Your task to perform on an android device: add a contact in the contacts app Image 0: 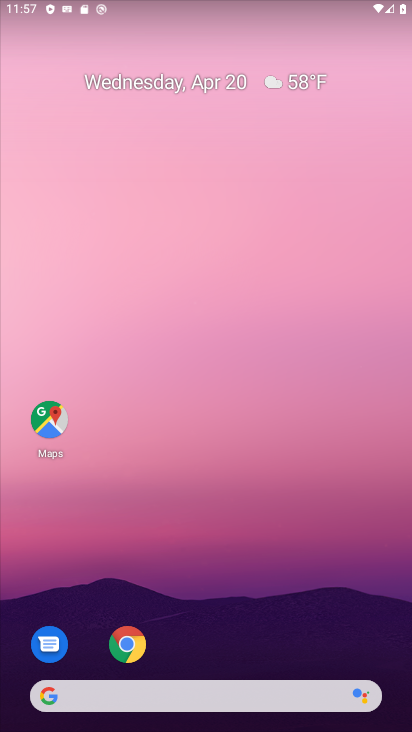
Step 0: press home button
Your task to perform on an android device: add a contact in the contacts app Image 1: 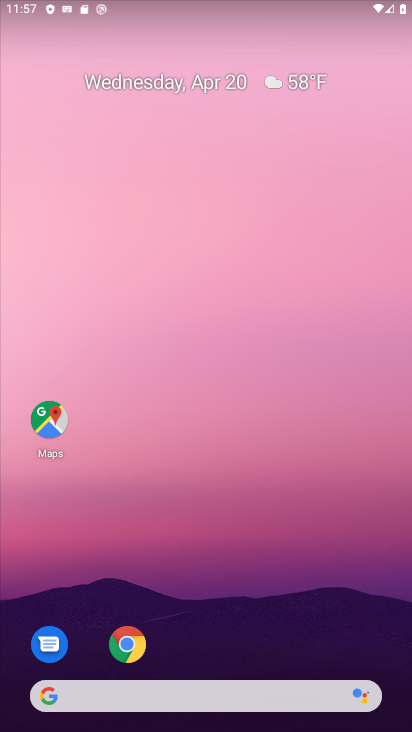
Step 1: drag from (214, 592) to (235, 74)
Your task to perform on an android device: add a contact in the contacts app Image 2: 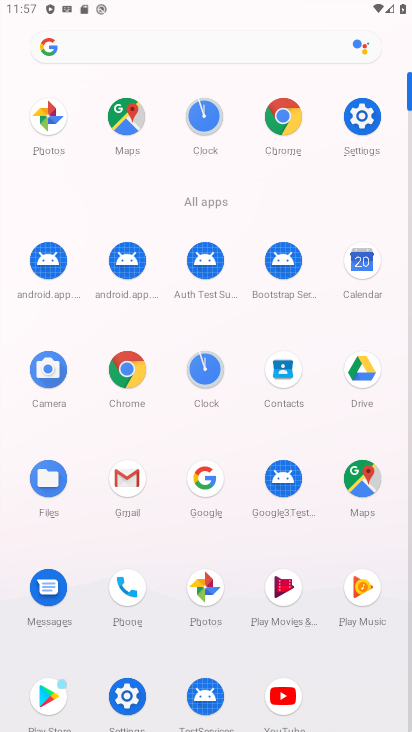
Step 2: click (287, 370)
Your task to perform on an android device: add a contact in the contacts app Image 3: 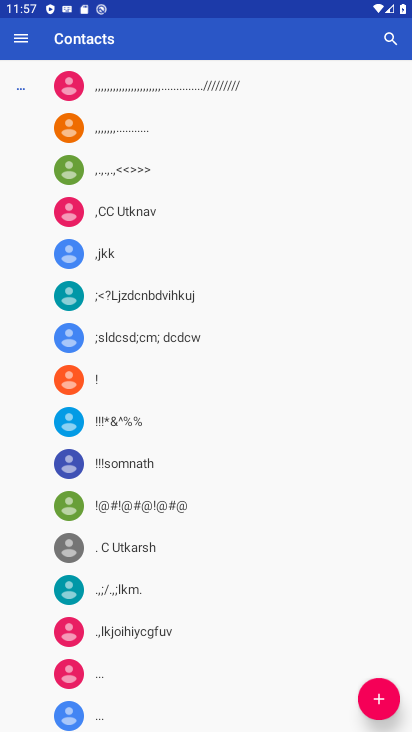
Step 3: click (384, 691)
Your task to perform on an android device: add a contact in the contacts app Image 4: 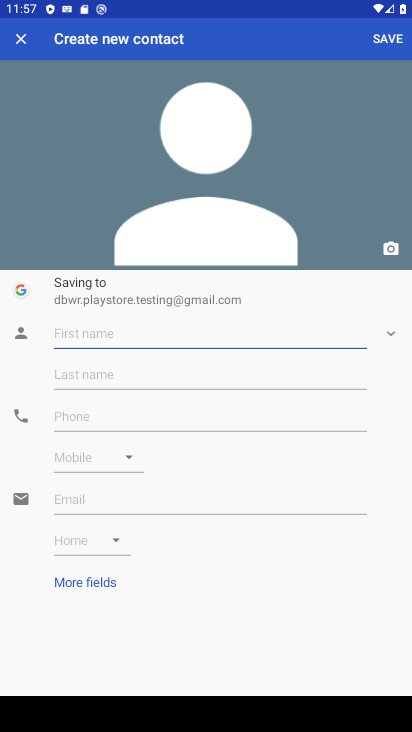
Step 4: type "hbb"
Your task to perform on an android device: add a contact in the contacts app Image 5: 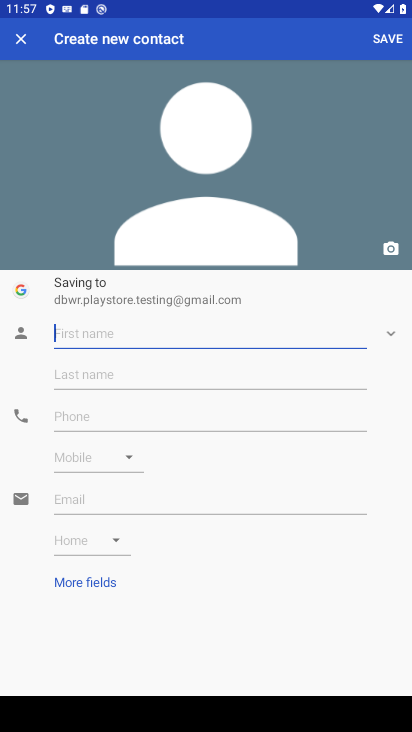
Step 5: click (98, 366)
Your task to perform on an android device: add a contact in the contacts app Image 6: 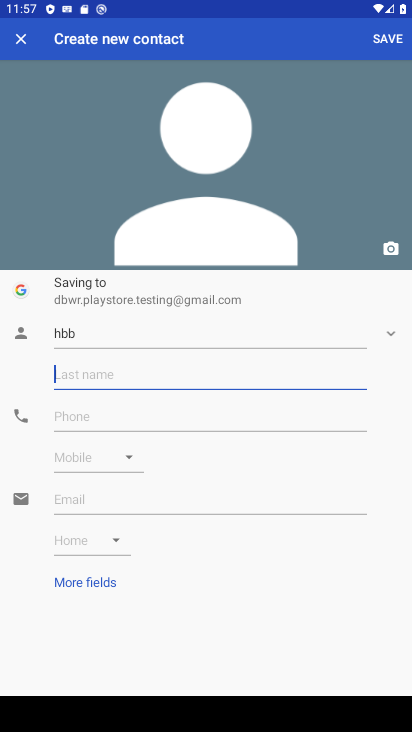
Step 6: type "hjbnb"
Your task to perform on an android device: add a contact in the contacts app Image 7: 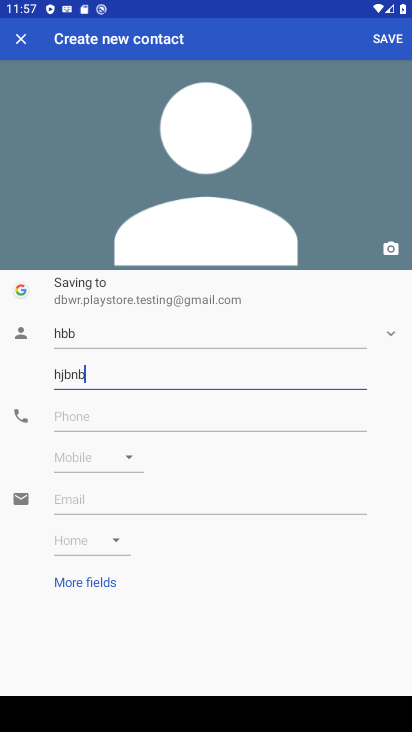
Step 7: click (109, 412)
Your task to perform on an android device: add a contact in the contacts app Image 8: 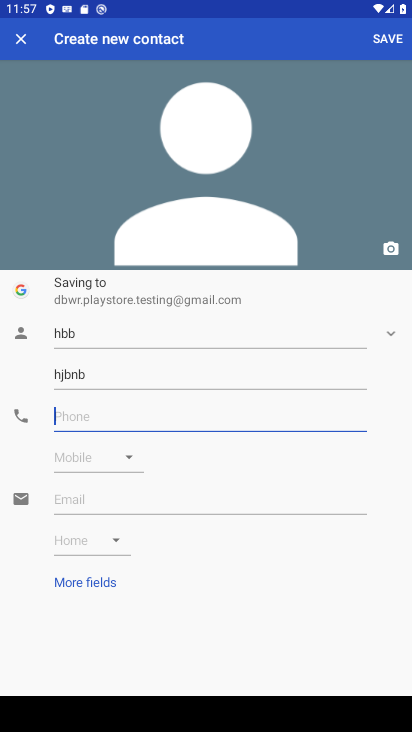
Step 8: click (72, 420)
Your task to perform on an android device: add a contact in the contacts app Image 9: 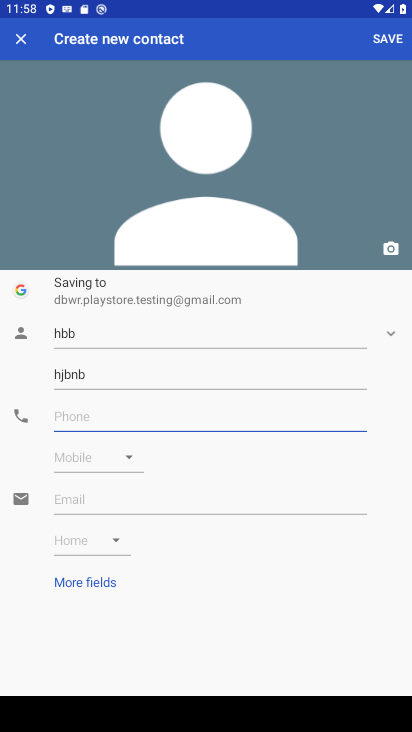
Step 9: type "465767"
Your task to perform on an android device: add a contact in the contacts app Image 10: 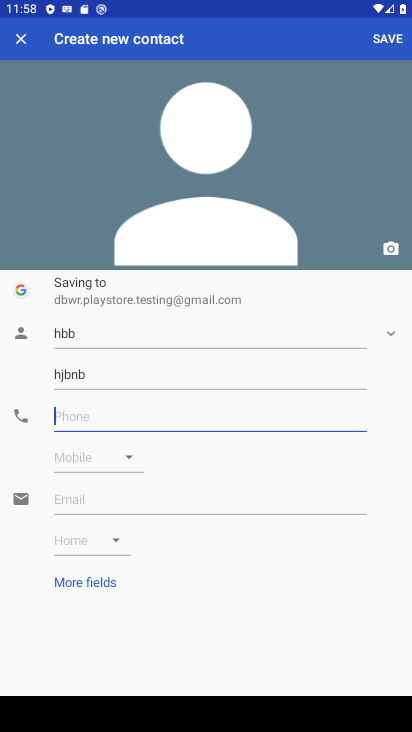
Step 10: click (187, 502)
Your task to perform on an android device: add a contact in the contacts app Image 11: 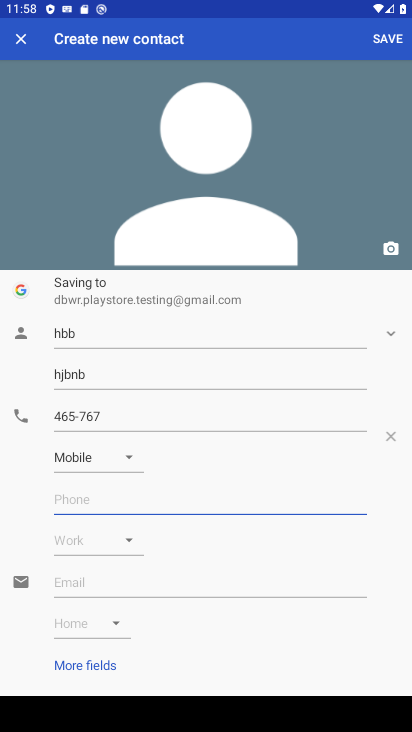
Step 11: click (373, 46)
Your task to perform on an android device: add a contact in the contacts app Image 12: 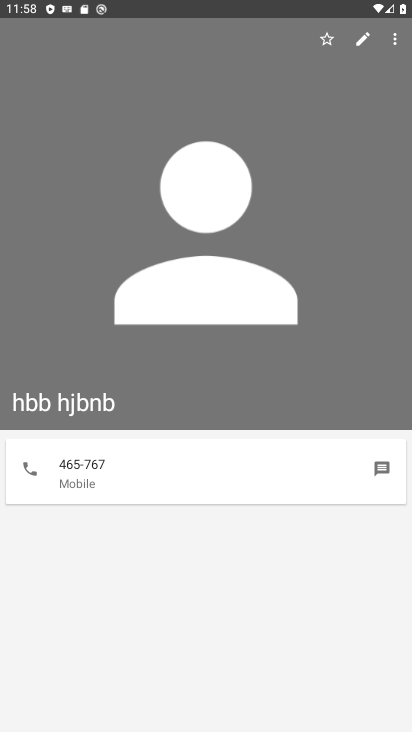
Step 12: task complete